Your task to perform on an android device: stop showing notifications on the lock screen Image 0: 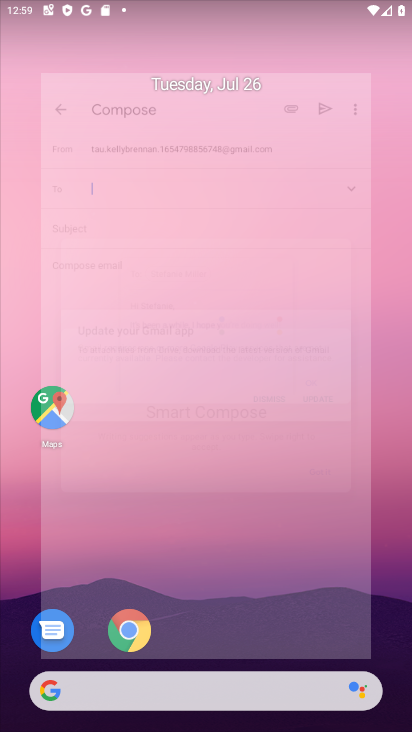
Step 0: drag from (217, 372) to (247, 201)
Your task to perform on an android device: stop showing notifications on the lock screen Image 1: 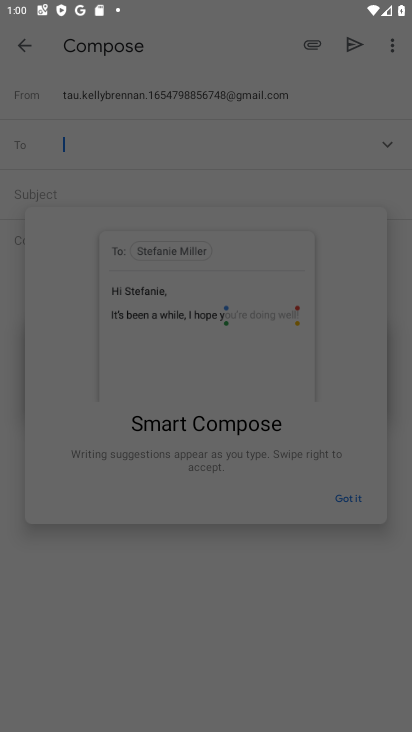
Step 1: press home button
Your task to perform on an android device: stop showing notifications on the lock screen Image 2: 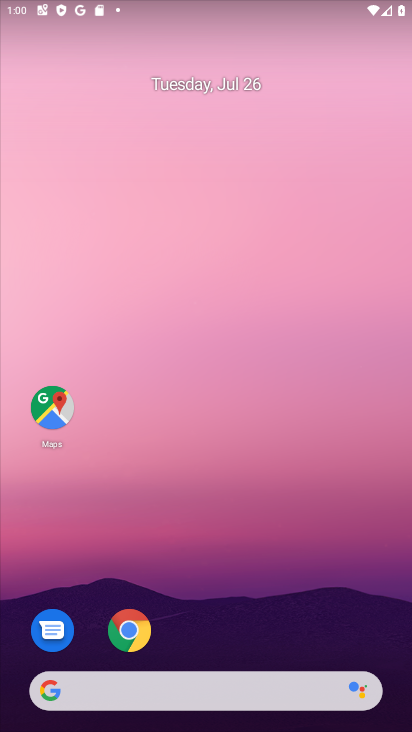
Step 2: drag from (212, 544) to (157, 259)
Your task to perform on an android device: stop showing notifications on the lock screen Image 3: 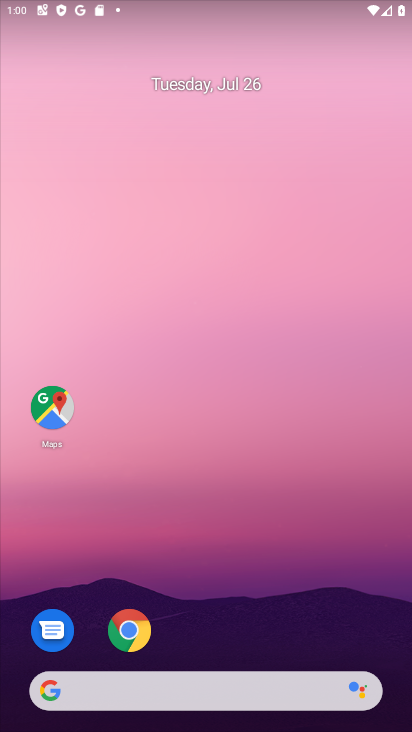
Step 3: drag from (181, 566) to (198, 45)
Your task to perform on an android device: stop showing notifications on the lock screen Image 4: 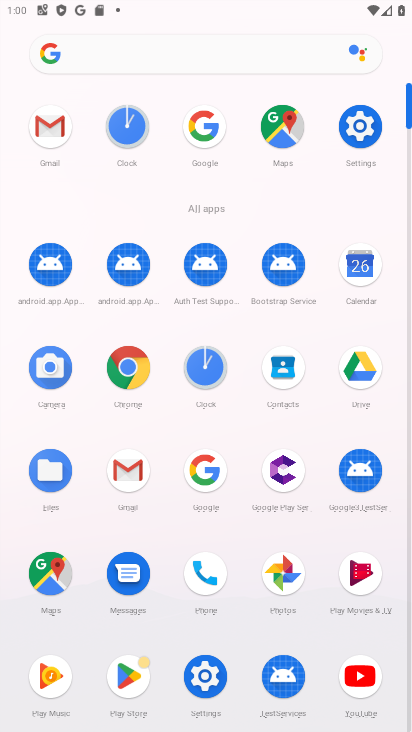
Step 4: click (361, 132)
Your task to perform on an android device: stop showing notifications on the lock screen Image 5: 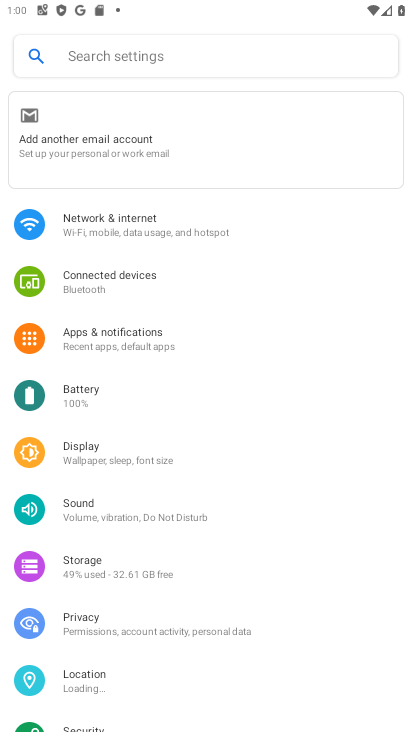
Step 5: click (109, 343)
Your task to perform on an android device: stop showing notifications on the lock screen Image 6: 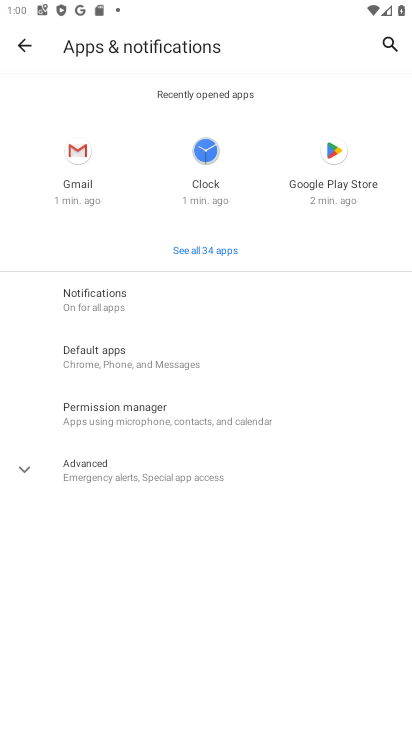
Step 6: click (109, 343)
Your task to perform on an android device: stop showing notifications on the lock screen Image 7: 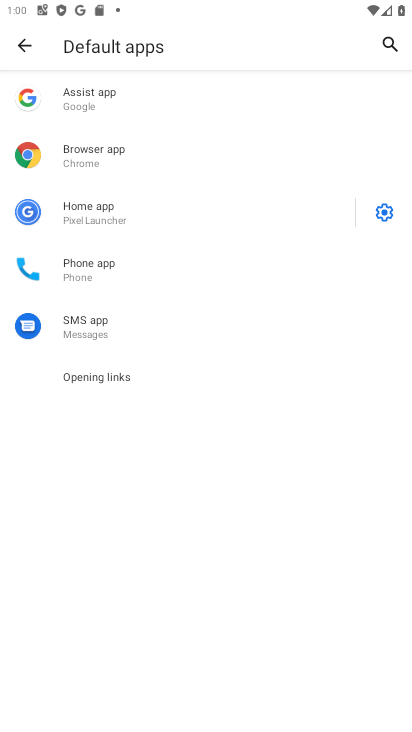
Step 7: click (21, 43)
Your task to perform on an android device: stop showing notifications on the lock screen Image 8: 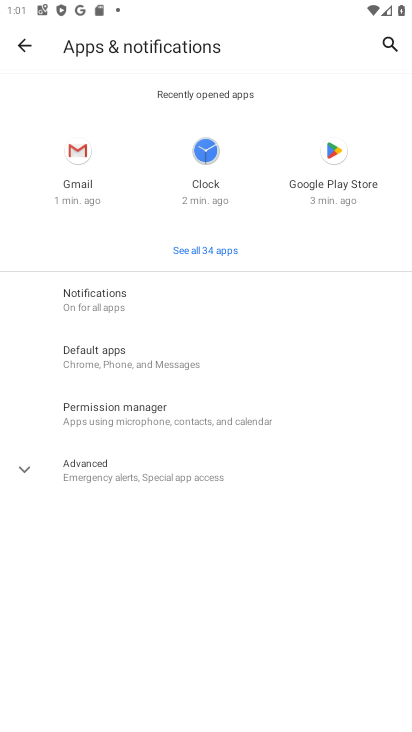
Step 8: click (110, 288)
Your task to perform on an android device: stop showing notifications on the lock screen Image 9: 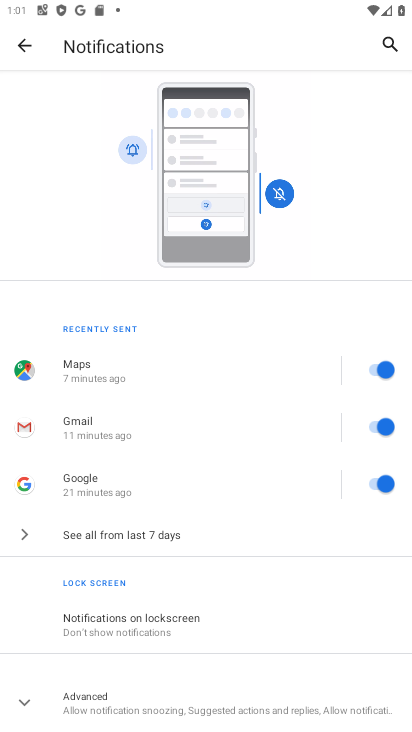
Step 9: click (164, 627)
Your task to perform on an android device: stop showing notifications on the lock screen Image 10: 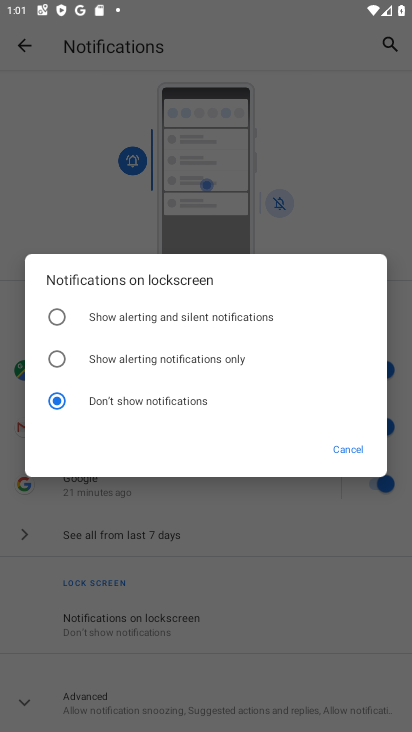
Step 10: task complete